Your task to perform on an android device: Search for seafood restaurants on Google Maps Image 0: 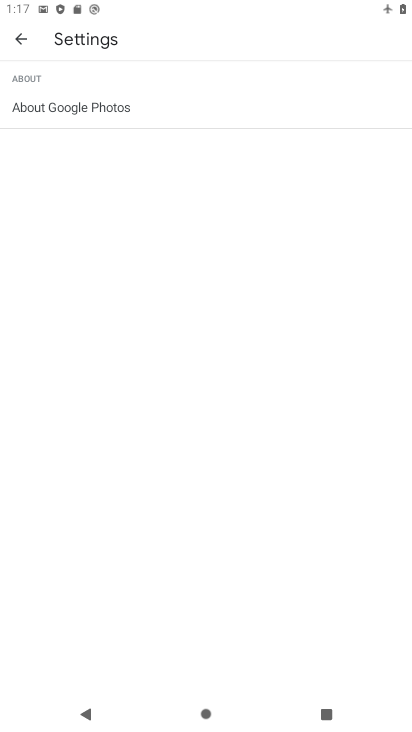
Step 0: press home button
Your task to perform on an android device: Search for seafood restaurants on Google Maps Image 1: 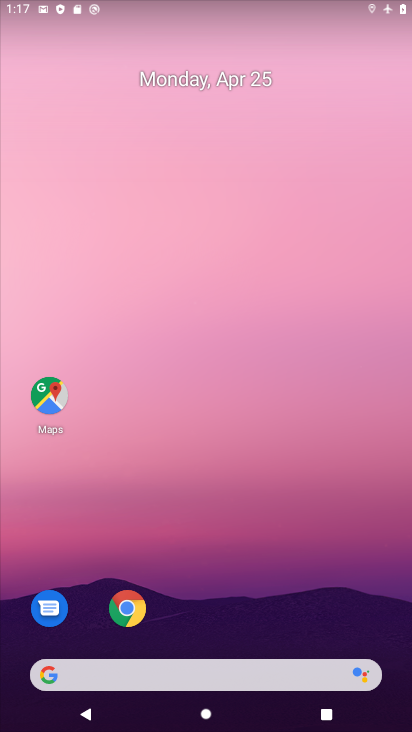
Step 1: drag from (218, 619) to (282, 72)
Your task to perform on an android device: Search for seafood restaurants on Google Maps Image 2: 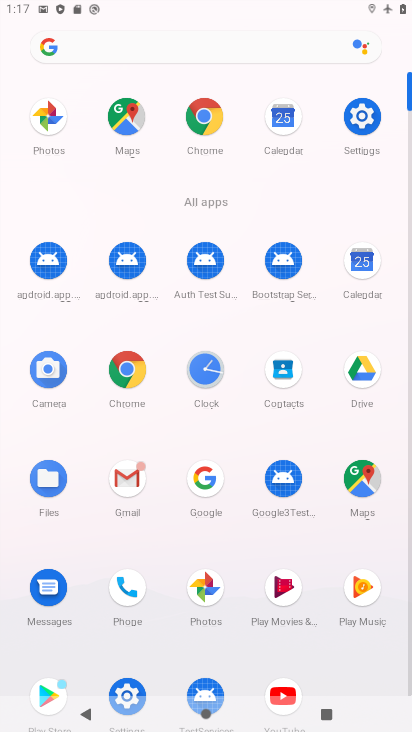
Step 2: click (104, 115)
Your task to perform on an android device: Search for seafood restaurants on Google Maps Image 3: 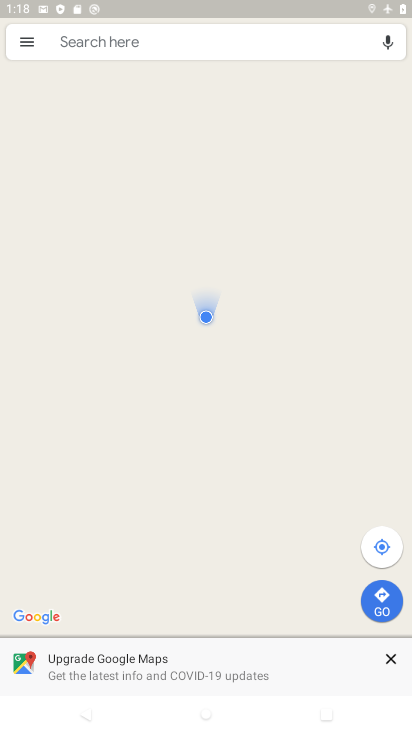
Step 3: click (123, 52)
Your task to perform on an android device: Search for seafood restaurants on Google Maps Image 4: 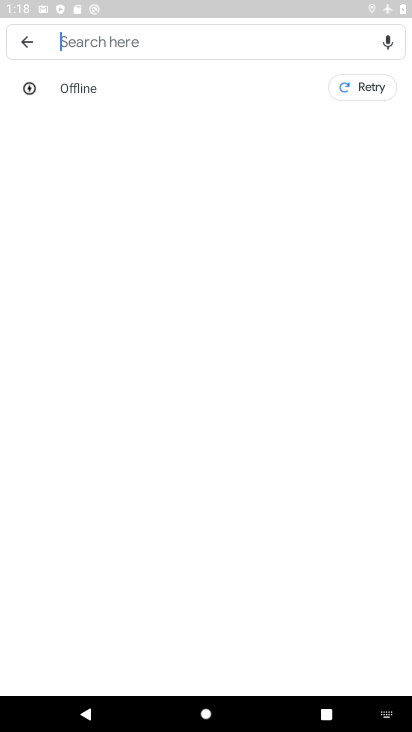
Step 4: type "seafood restaurants"
Your task to perform on an android device: Search for seafood restaurants on Google Maps Image 5: 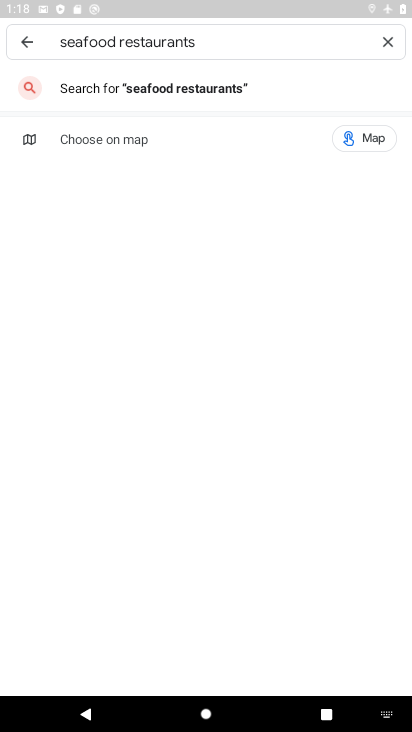
Step 5: click (186, 90)
Your task to perform on an android device: Search for seafood restaurants on Google Maps Image 6: 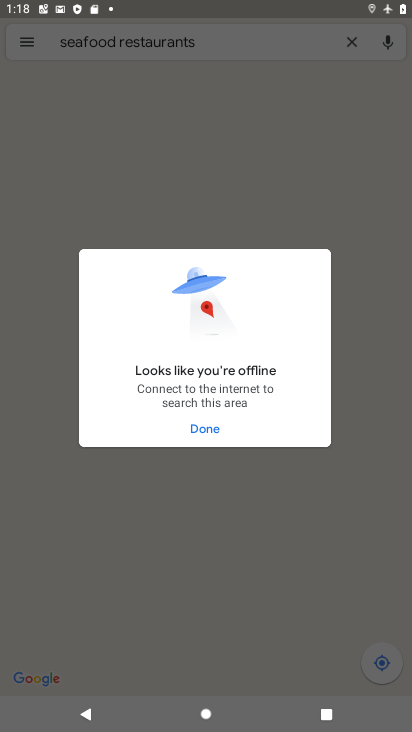
Step 6: task complete